Your task to perform on an android device: turn off translation in the chrome app Image 0: 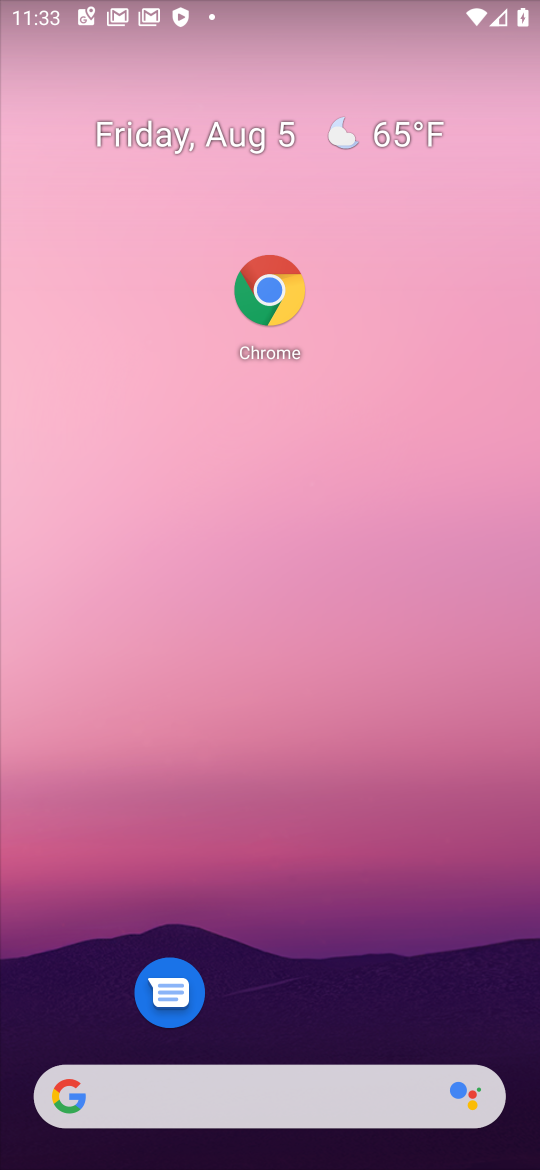
Step 0: drag from (353, 952) to (370, 352)
Your task to perform on an android device: turn off translation in the chrome app Image 1: 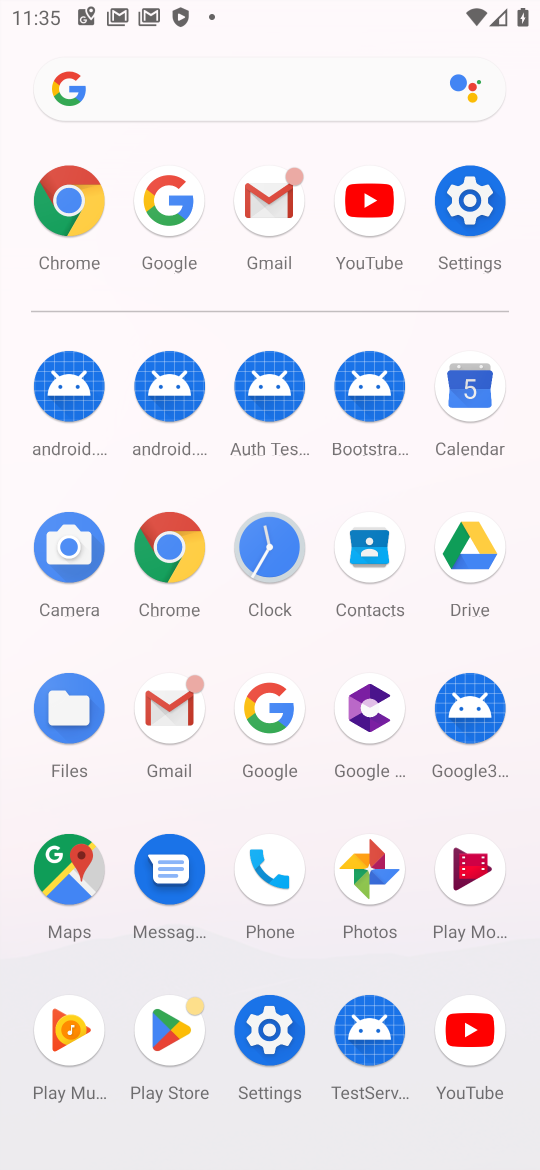
Step 1: click (62, 211)
Your task to perform on an android device: turn off translation in the chrome app Image 2: 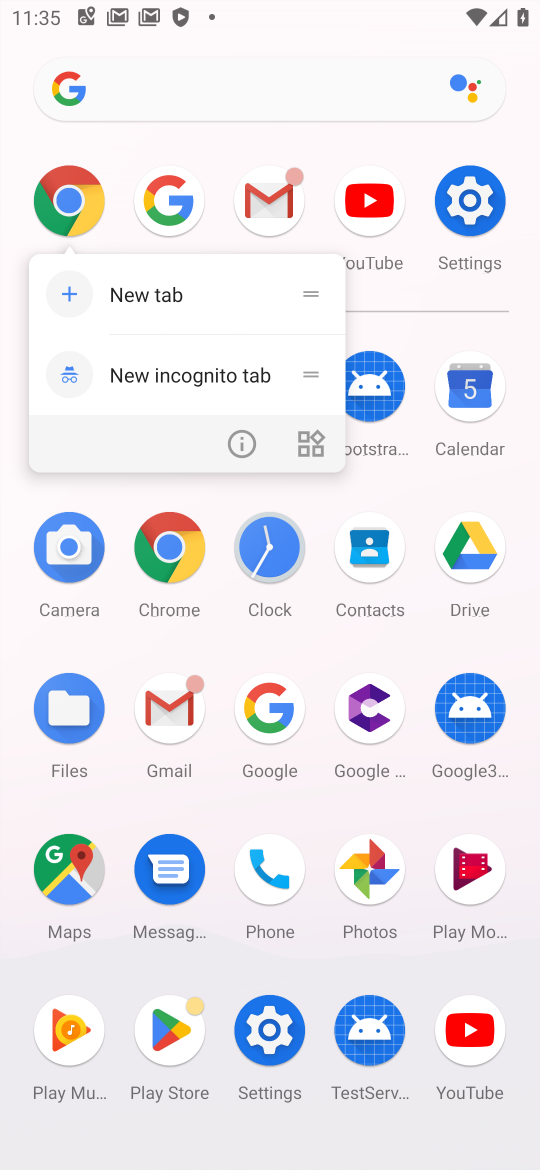
Step 2: click (62, 210)
Your task to perform on an android device: turn off translation in the chrome app Image 3: 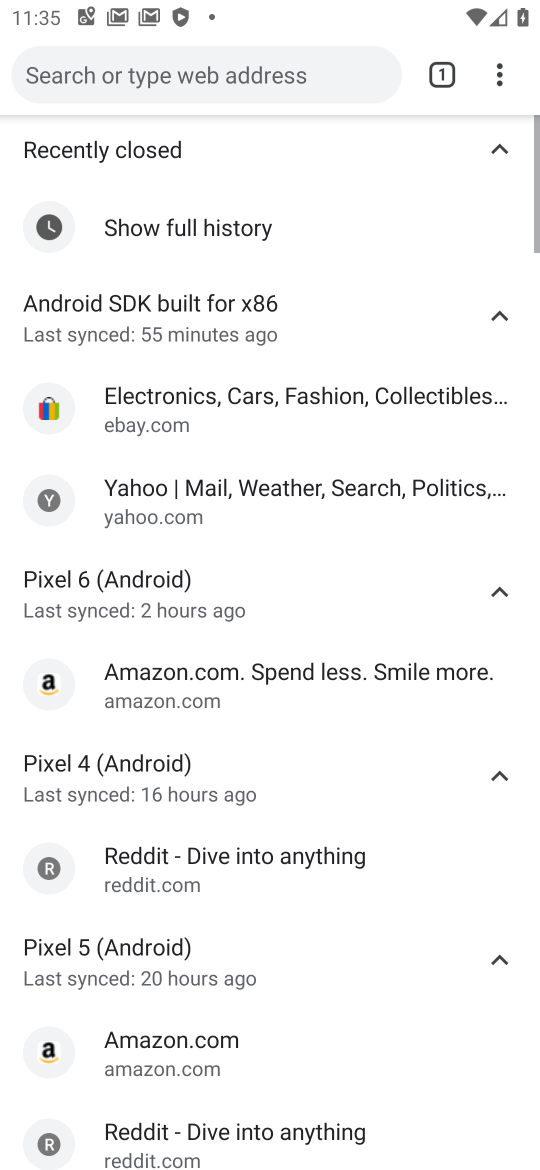
Step 3: drag from (513, 87) to (256, 652)
Your task to perform on an android device: turn off translation in the chrome app Image 4: 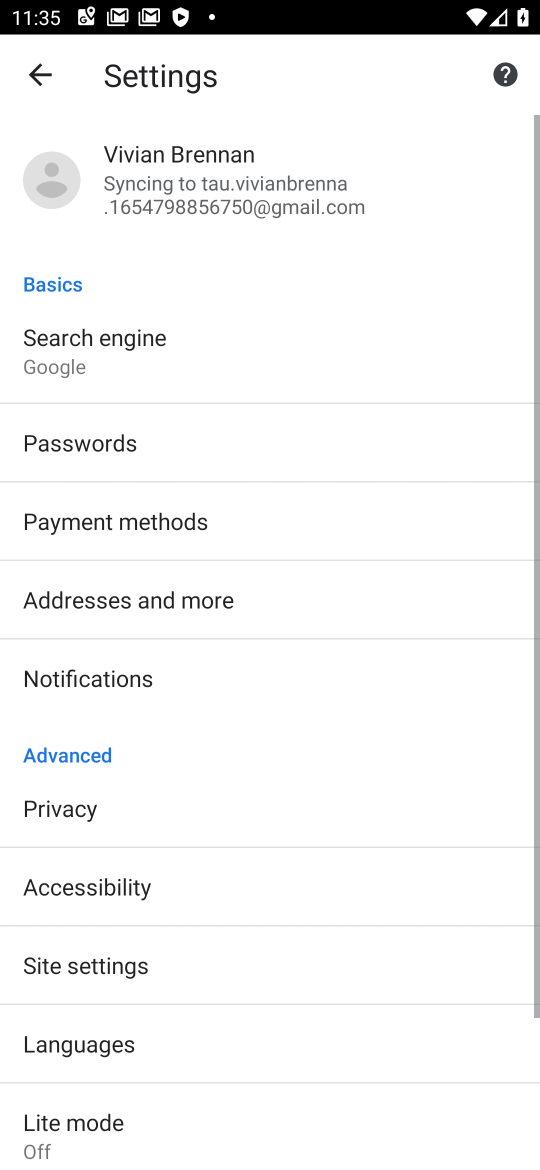
Step 4: drag from (245, 896) to (324, 206)
Your task to perform on an android device: turn off translation in the chrome app Image 5: 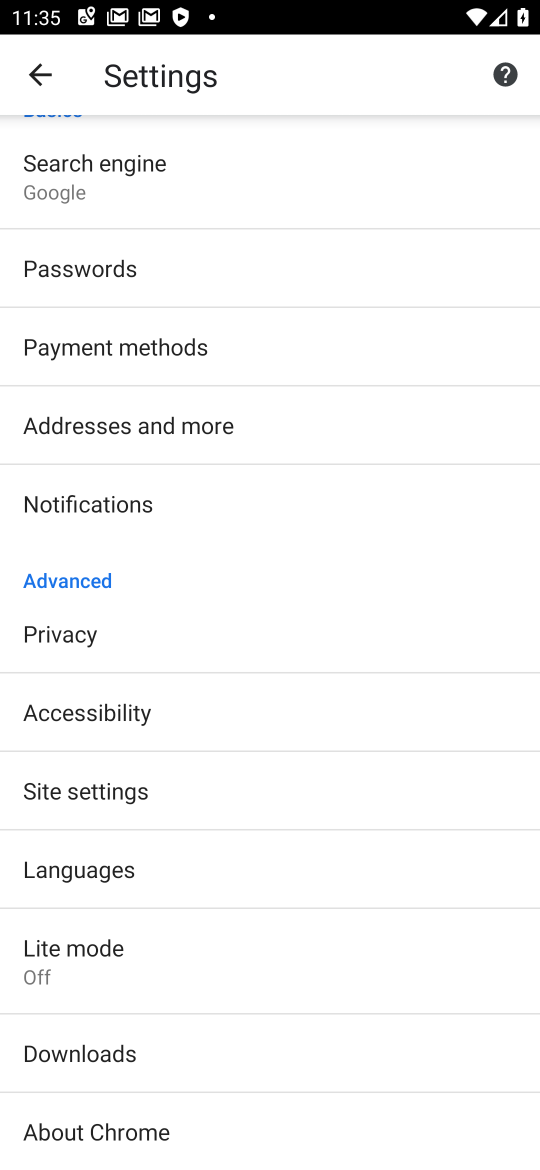
Step 5: click (84, 873)
Your task to perform on an android device: turn off translation in the chrome app Image 6: 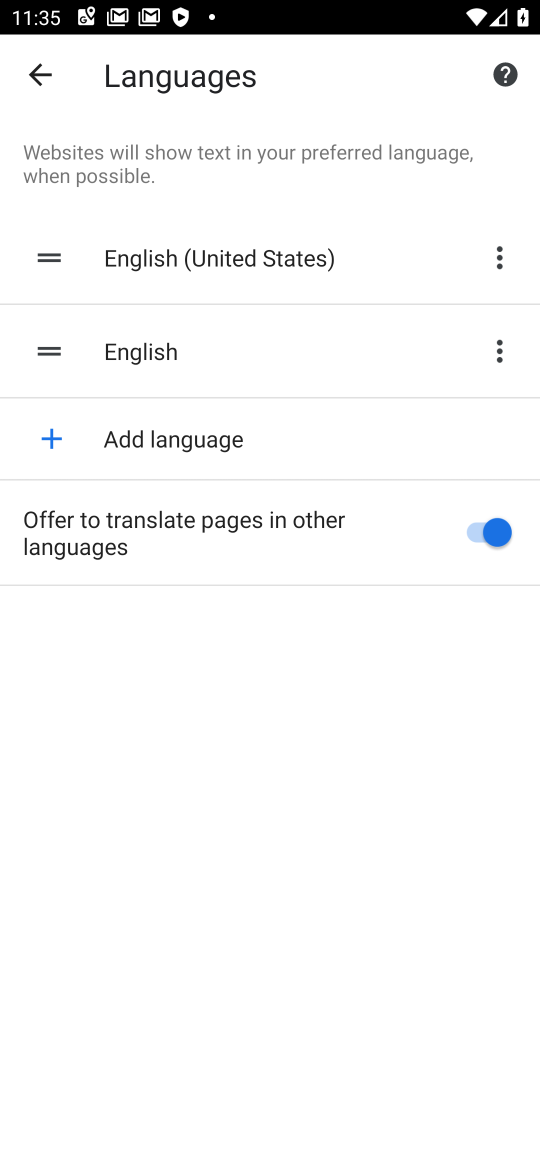
Step 6: click (481, 515)
Your task to perform on an android device: turn off translation in the chrome app Image 7: 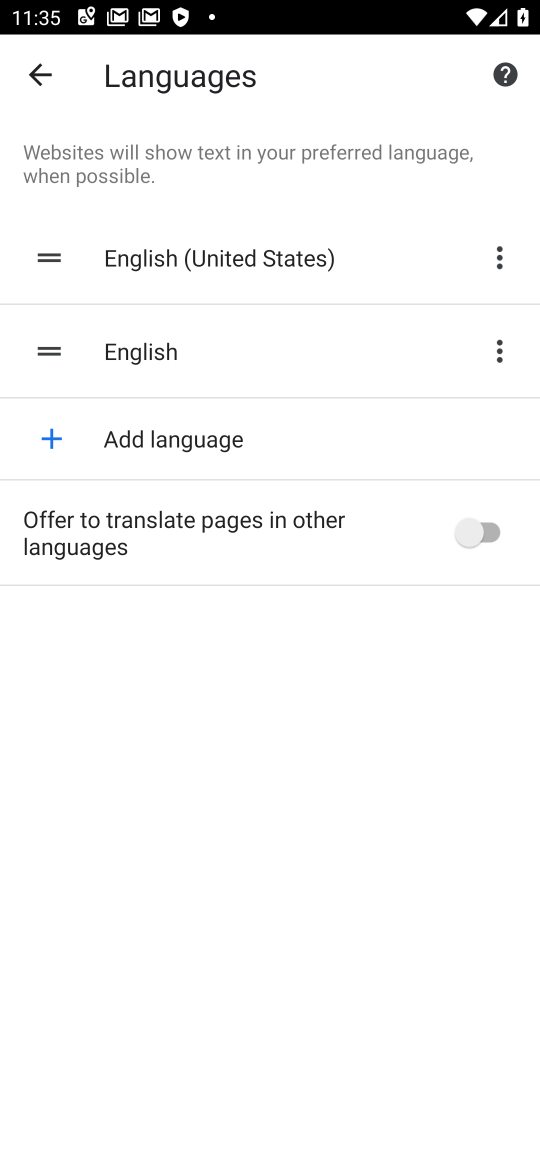
Step 7: task complete